Your task to perform on an android device: check data usage Image 0: 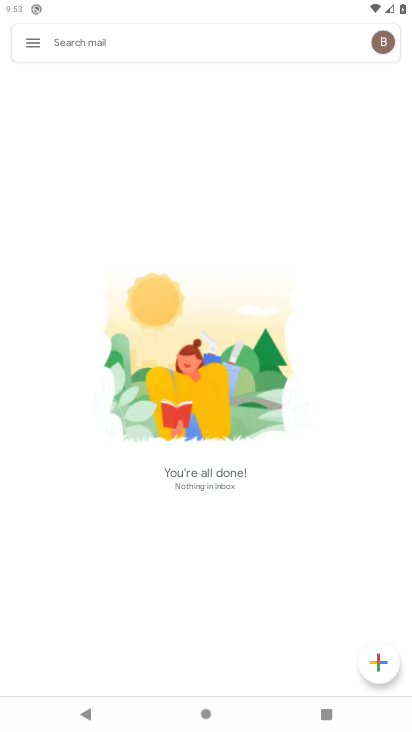
Step 0: press home button
Your task to perform on an android device: check data usage Image 1: 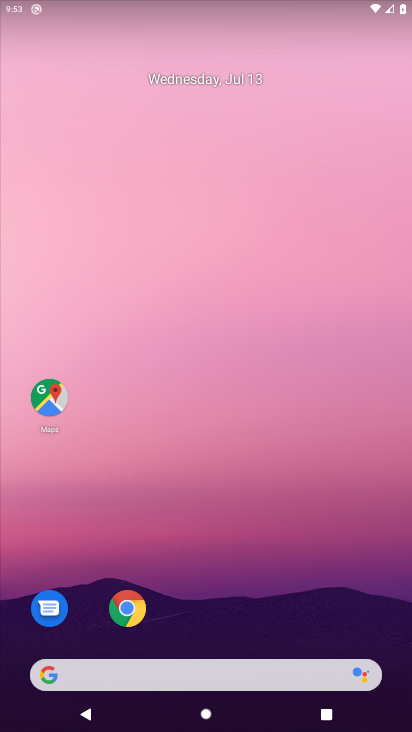
Step 1: task complete